Your task to perform on an android device: Is it going to rain this weekend? Image 0: 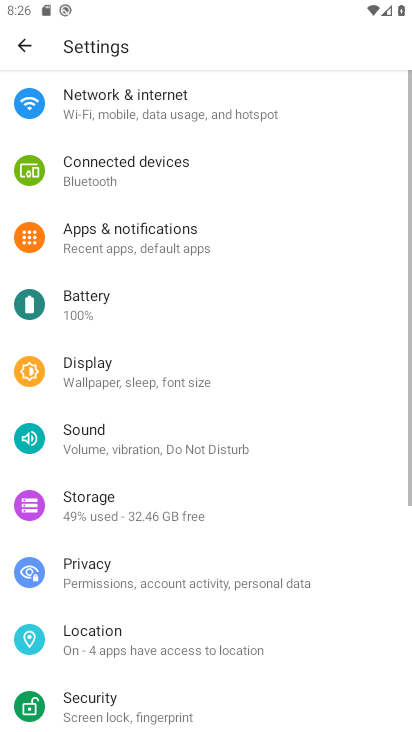
Step 0: press home button
Your task to perform on an android device: Is it going to rain this weekend? Image 1: 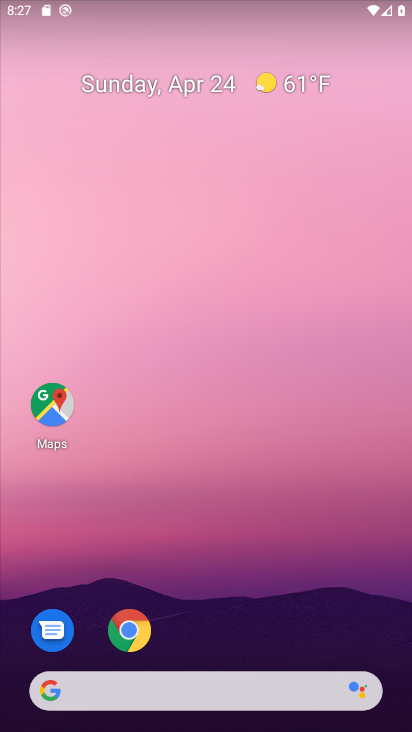
Step 1: click (244, 693)
Your task to perform on an android device: Is it going to rain this weekend? Image 2: 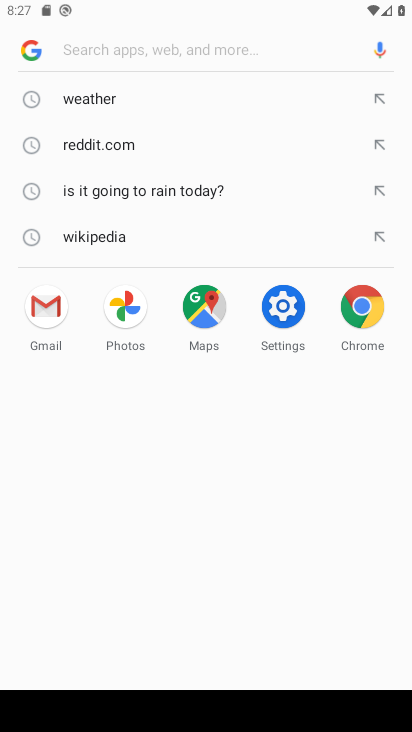
Step 2: click (94, 94)
Your task to perform on an android device: Is it going to rain this weekend? Image 3: 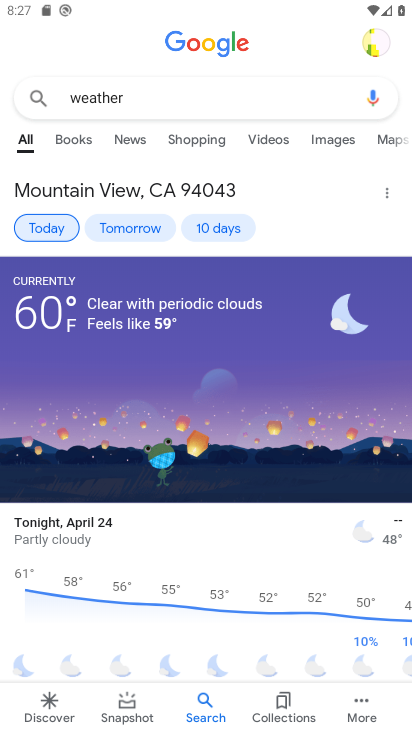
Step 3: click (216, 228)
Your task to perform on an android device: Is it going to rain this weekend? Image 4: 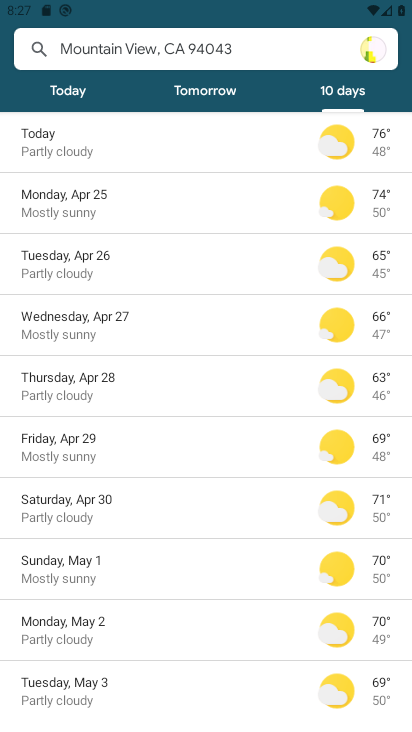
Step 4: task complete